Your task to perform on an android device: check android version Image 0: 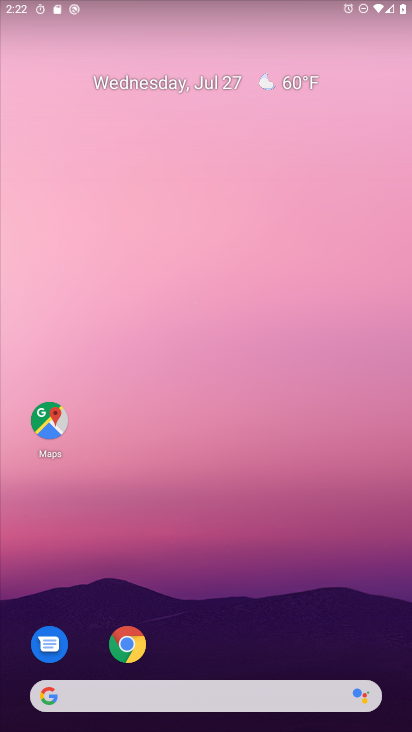
Step 0: drag from (163, 537) to (141, 230)
Your task to perform on an android device: check android version Image 1: 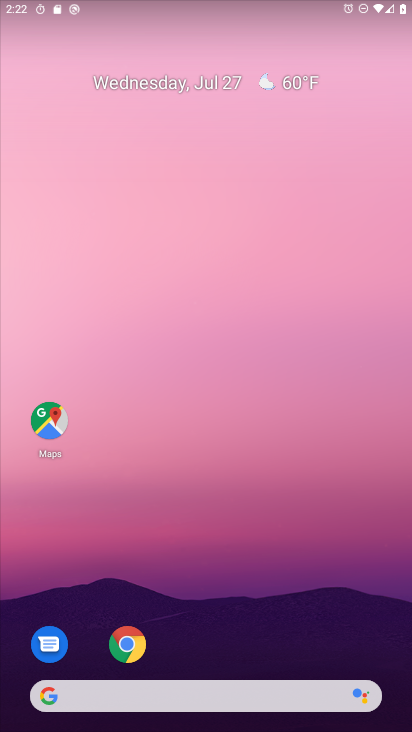
Step 1: drag from (181, 638) to (236, 95)
Your task to perform on an android device: check android version Image 2: 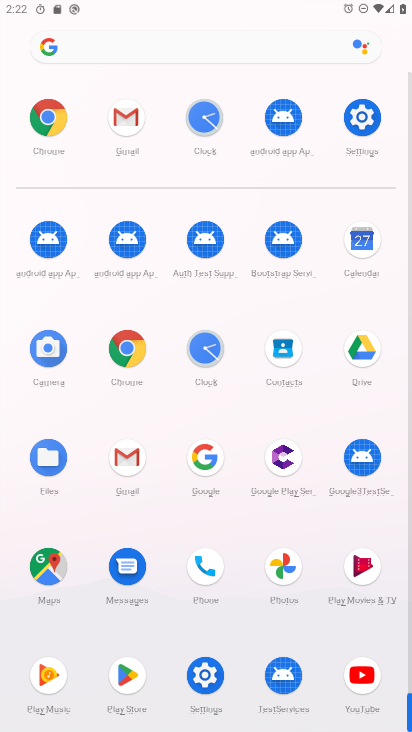
Step 2: click (201, 672)
Your task to perform on an android device: check android version Image 3: 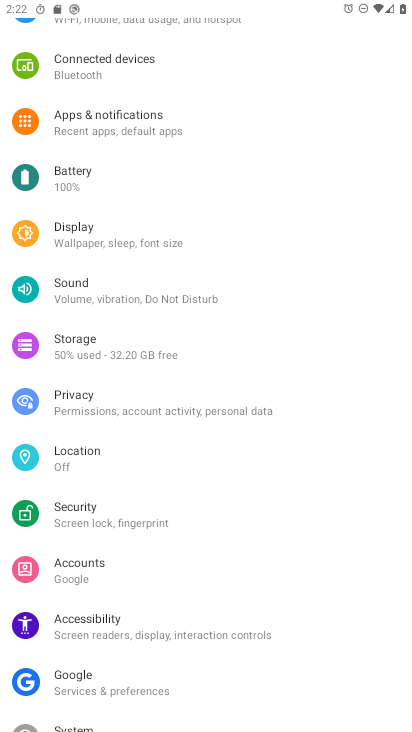
Step 3: drag from (206, 650) to (300, 176)
Your task to perform on an android device: check android version Image 4: 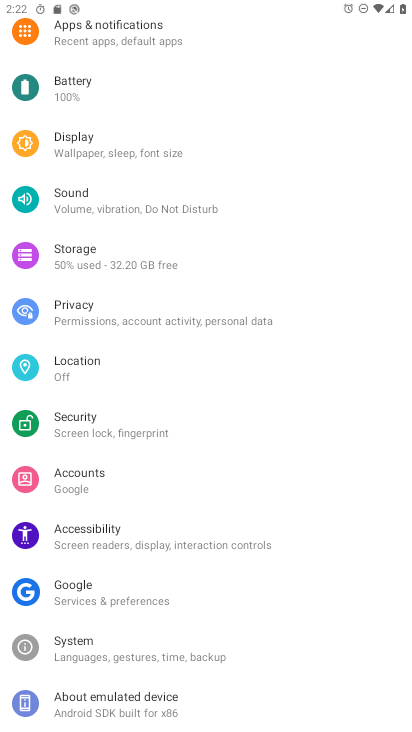
Step 4: click (114, 696)
Your task to perform on an android device: check android version Image 5: 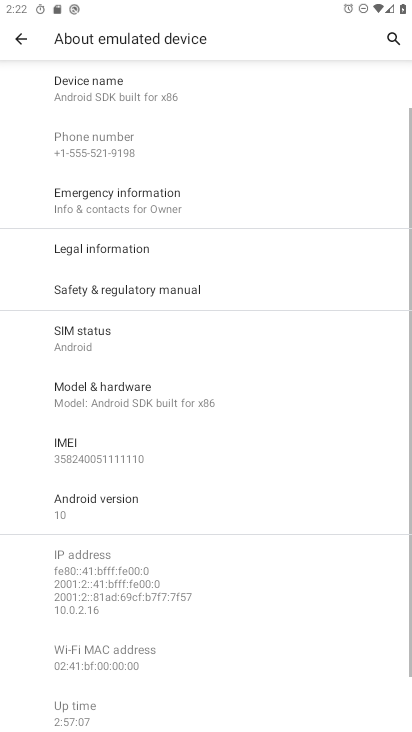
Step 5: click (187, 522)
Your task to perform on an android device: check android version Image 6: 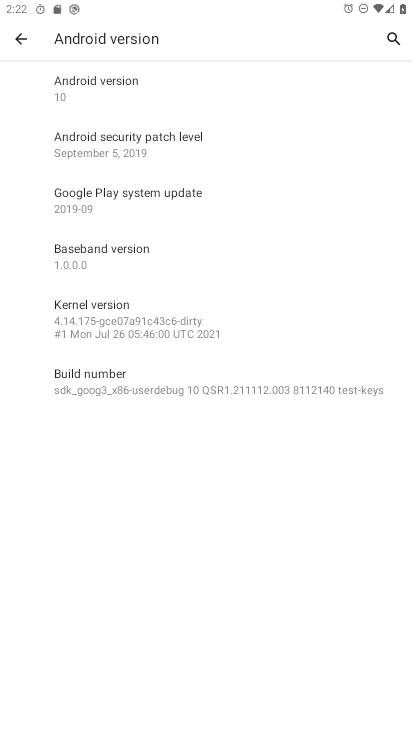
Step 6: click (143, 79)
Your task to perform on an android device: check android version Image 7: 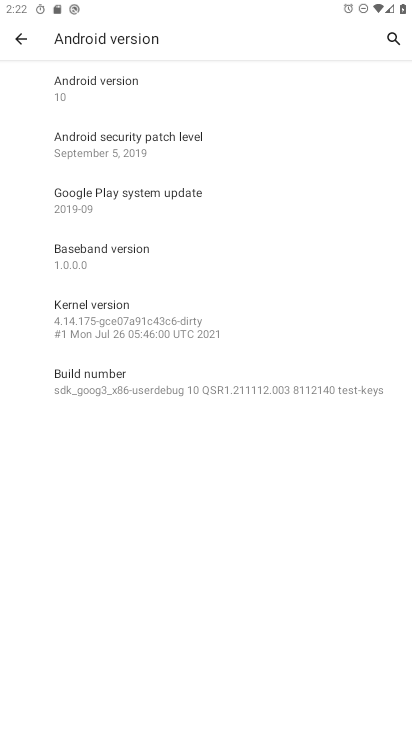
Step 7: task complete